Your task to perform on an android device: turn on wifi Image 0: 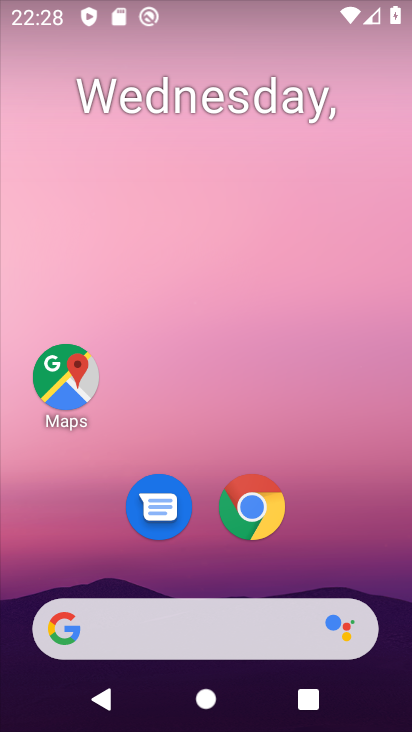
Step 0: drag from (323, 384) to (319, 216)
Your task to perform on an android device: turn on wifi Image 1: 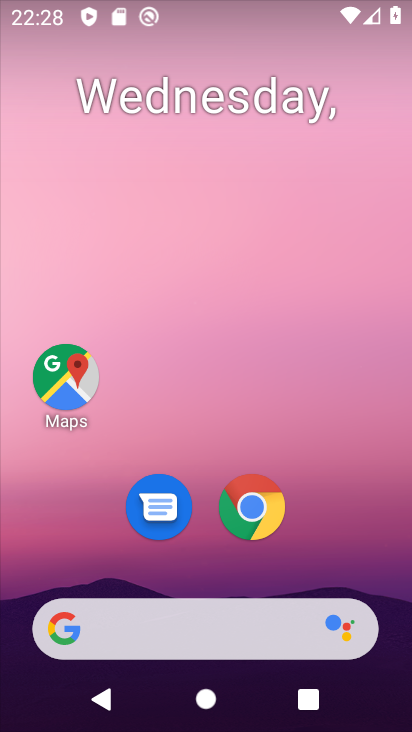
Step 1: drag from (322, 589) to (313, 231)
Your task to perform on an android device: turn on wifi Image 2: 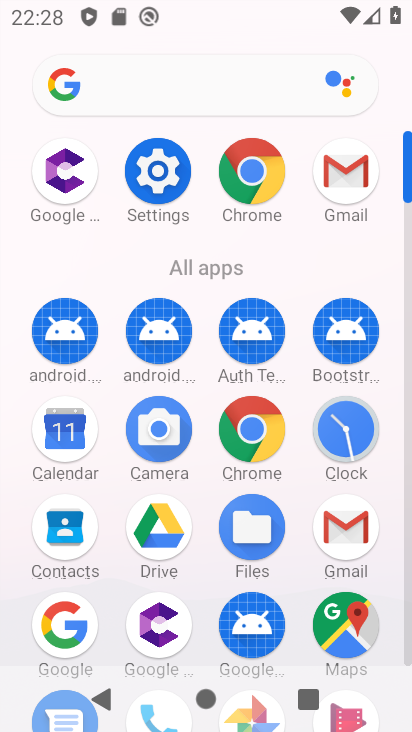
Step 2: click (161, 166)
Your task to perform on an android device: turn on wifi Image 3: 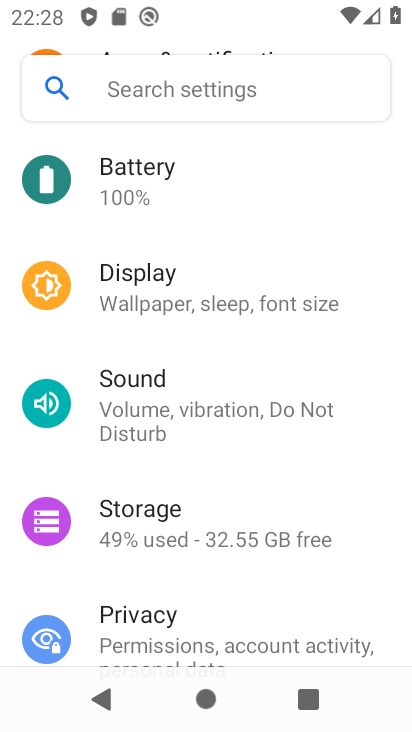
Step 3: drag from (164, 183) to (219, 561)
Your task to perform on an android device: turn on wifi Image 4: 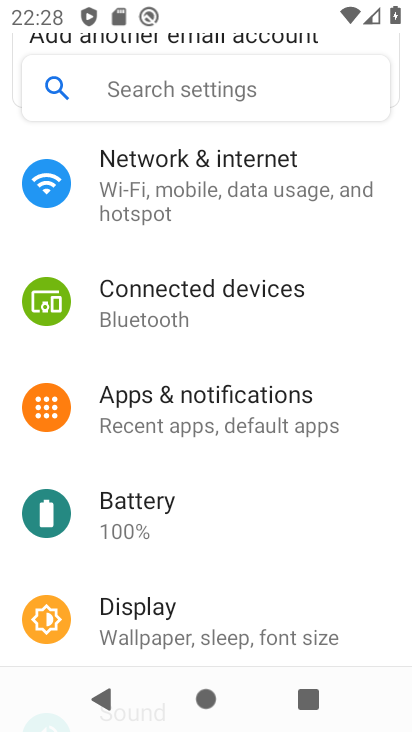
Step 4: drag from (186, 232) to (212, 586)
Your task to perform on an android device: turn on wifi Image 5: 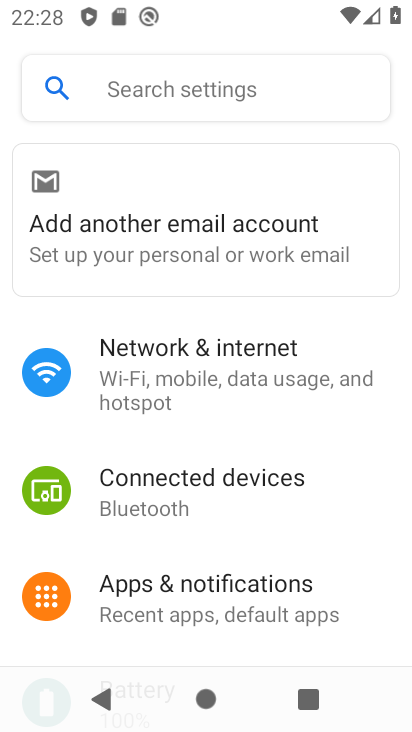
Step 5: click (216, 390)
Your task to perform on an android device: turn on wifi Image 6: 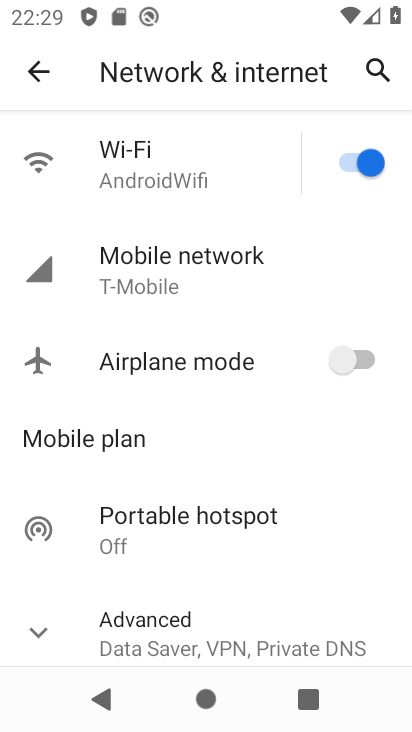
Step 6: task complete